Your task to perform on an android device: Go to accessibility settings Image 0: 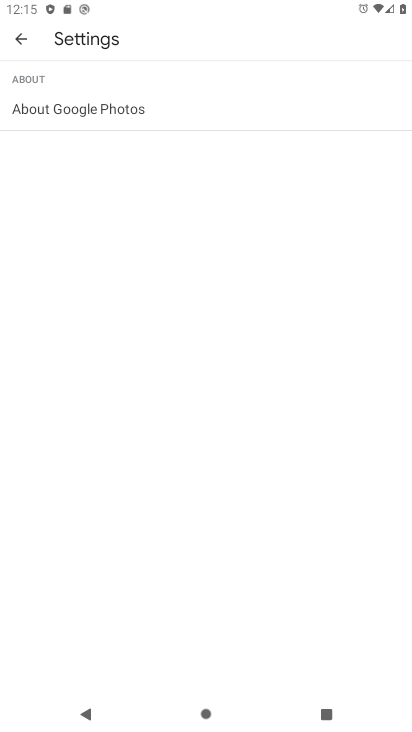
Step 0: click (23, 32)
Your task to perform on an android device: Go to accessibility settings Image 1: 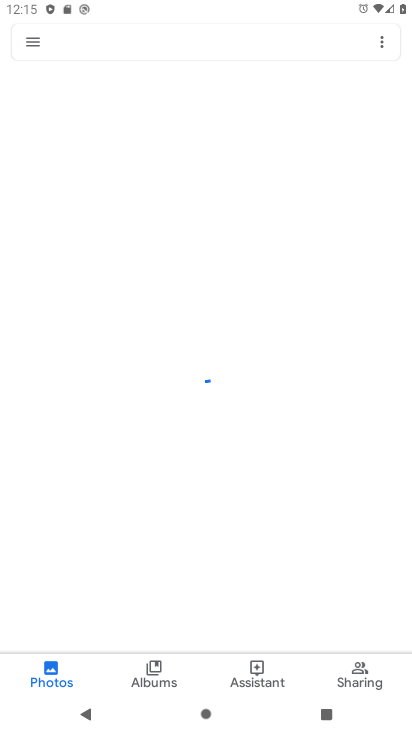
Step 1: press back button
Your task to perform on an android device: Go to accessibility settings Image 2: 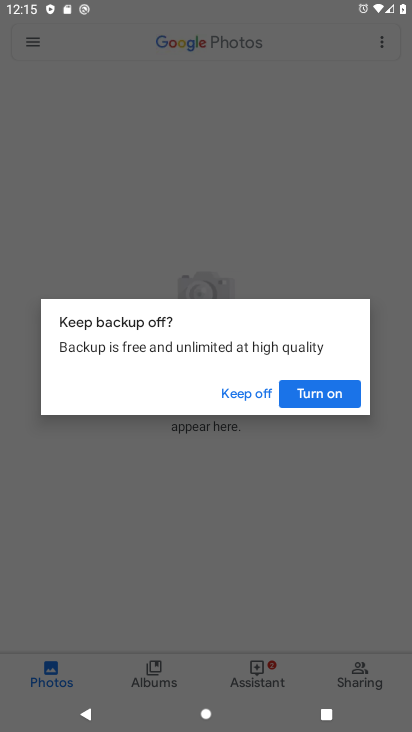
Step 2: press back button
Your task to perform on an android device: Go to accessibility settings Image 3: 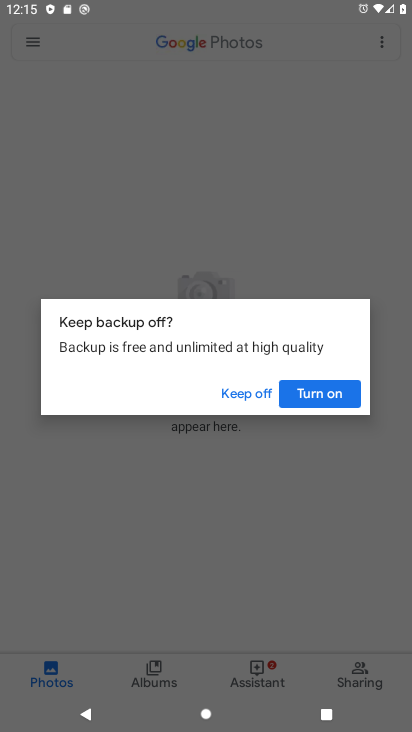
Step 3: click (222, 395)
Your task to perform on an android device: Go to accessibility settings Image 4: 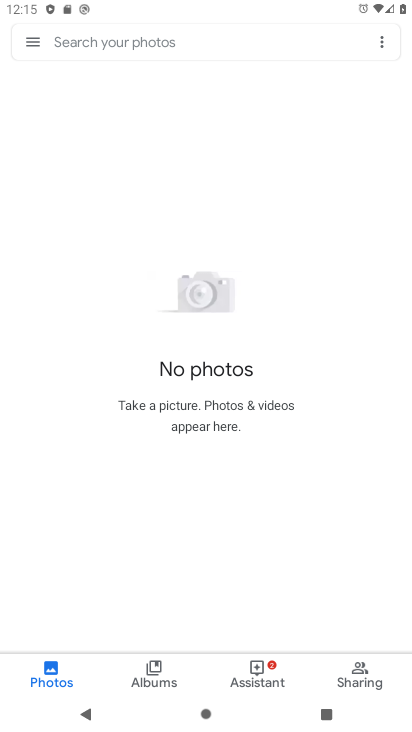
Step 4: press back button
Your task to perform on an android device: Go to accessibility settings Image 5: 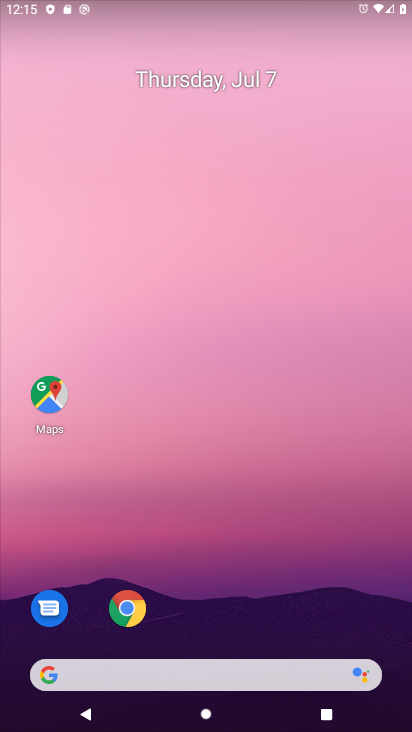
Step 5: drag from (219, 515) to (286, 19)
Your task to perform on an android device: Go to accessibility settings Image 6: 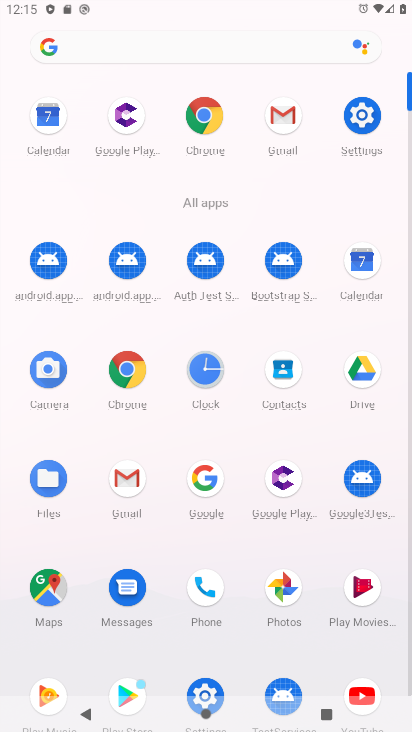
Step 6: click (351, 121)
Your task to perform on an android device: Go to accessibility settings Image 7: 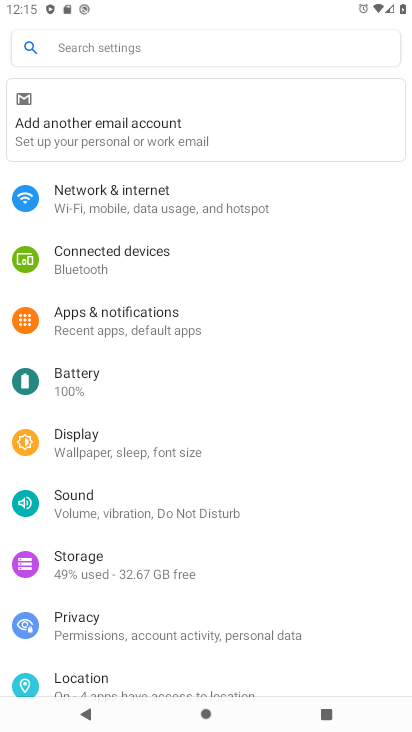
Step 7: drag from (123, 661) to (251, 136)
Your task to perform on an android device: Go to accessibility settings Image 8: 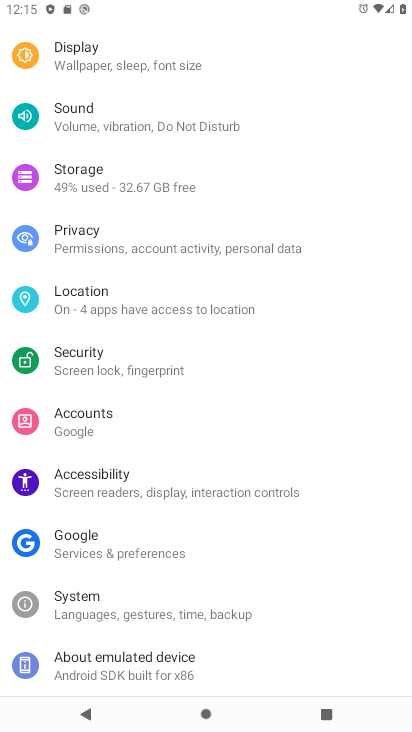
Step 8: click (93, 474)
Your task to perform on an android device: Go to accessibility settings Image 9: 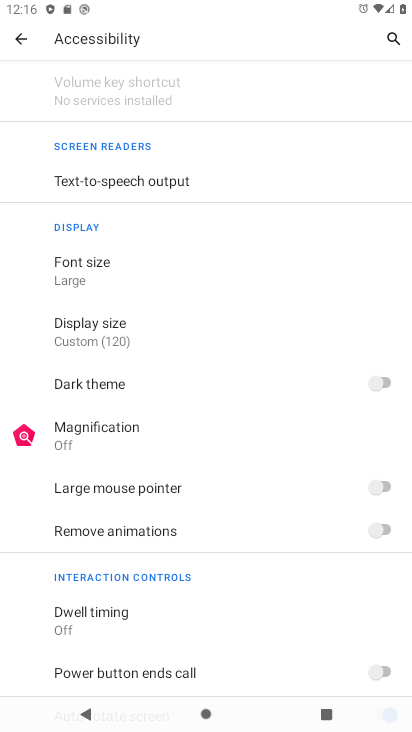
Step 9: task complete